Your task to perform on an android device: turn off location history Image 0: 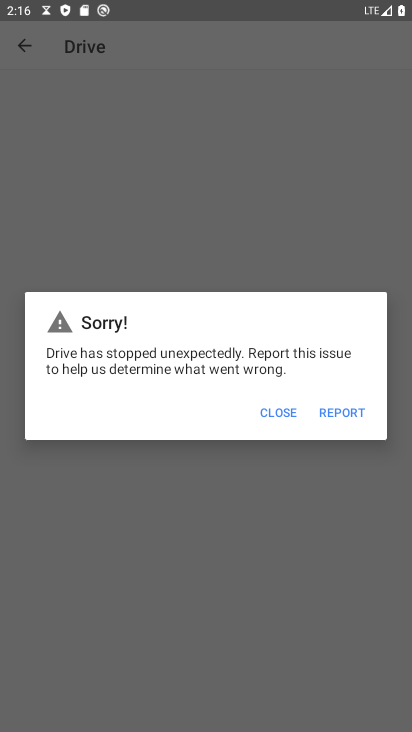
Step 0: press home button
Your task to perform on an android device: turn off location history Image 1: 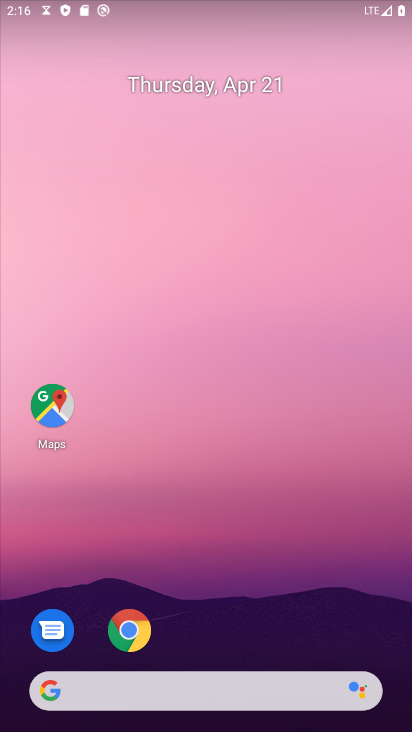
Step 1: click (346, 617)
Your task to perform on an android device: turn off location history Image 2: 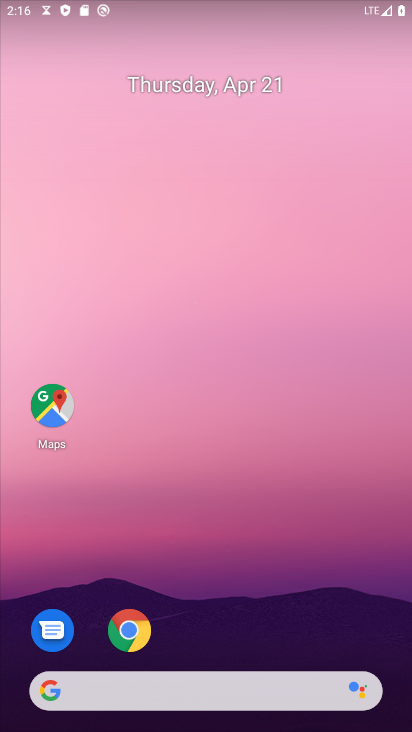
Step 2: click (55, 396)
Your task to perform on an android device: turn off location history Image 3: 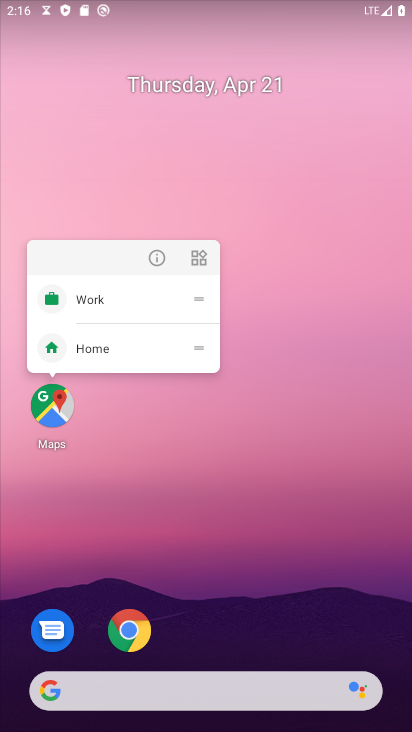
Step 3: click (52, 405)
Your task to perform on an android device: turn off location history Image 4: 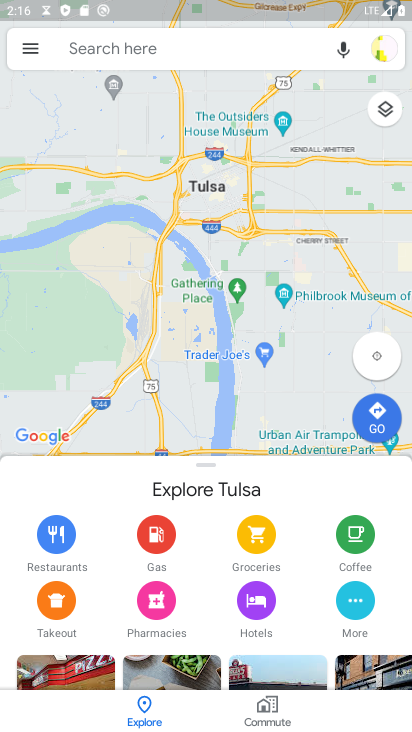
Step 4: click (28, 49)
Your task to perform on an android device: turn off location history Image 5: 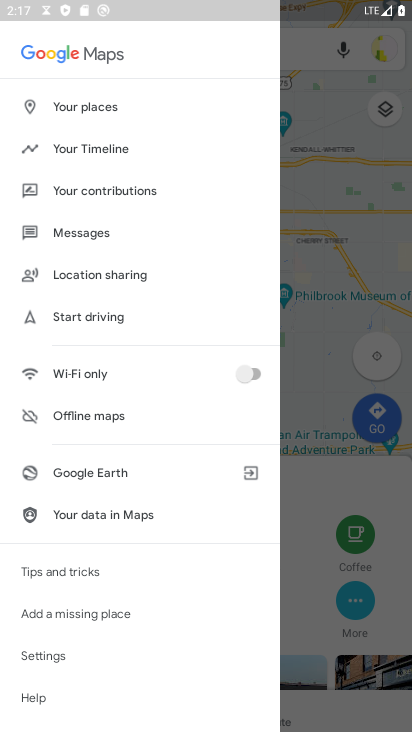
Step 5: click (78, 159)
Your task to perform on an android device: turn off location history Image 6: 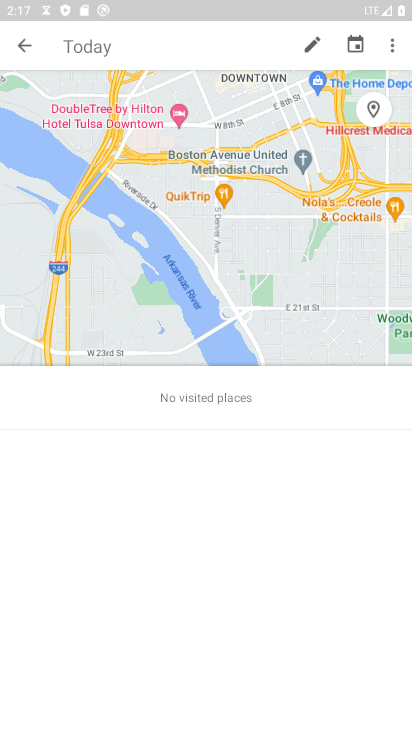
Step 6: click (393, 41)
Your task to perform on an android device: turn off location history Image 7: 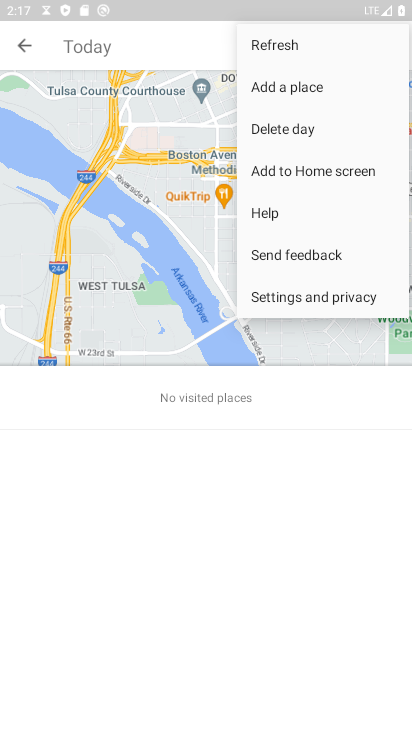
Step 7: click (284, 297)
Your task to perform on an android device: turn off location history Image 8: 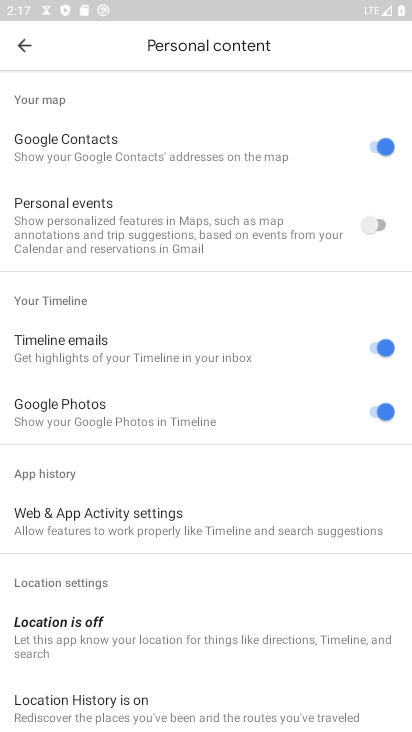
Step 8: drag from (193, 573) to (193, 307)
Your task to perform on an android device: turn off location history Image 9: 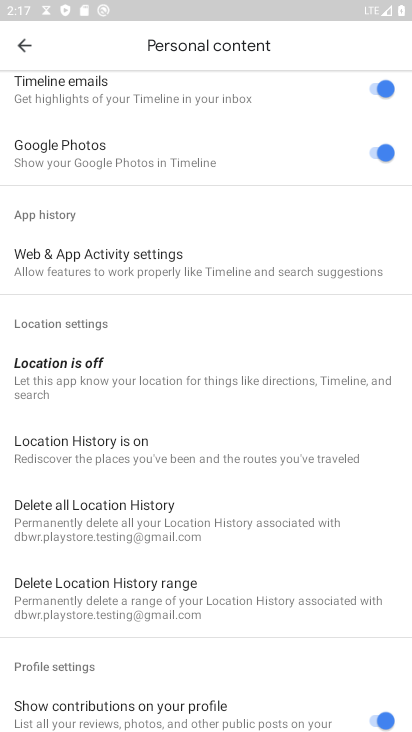
Step 9: click (86, 455)
Your task to perform on an android device: turn off location history Image 10: 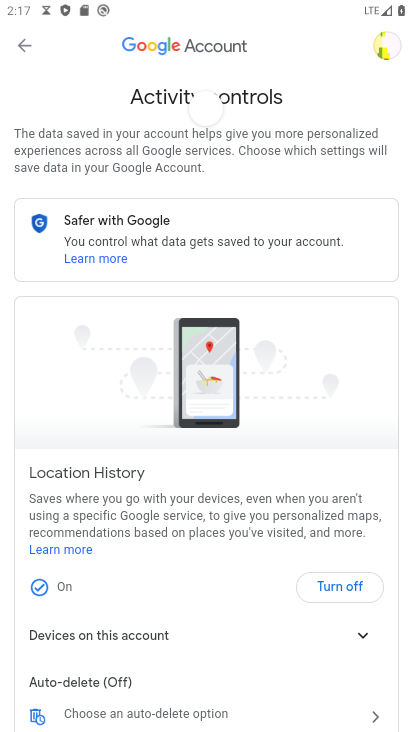
Step 10: drag from (304, 406) to (292, 172)
Your task to perform on an android device: turn off location history Image 11: 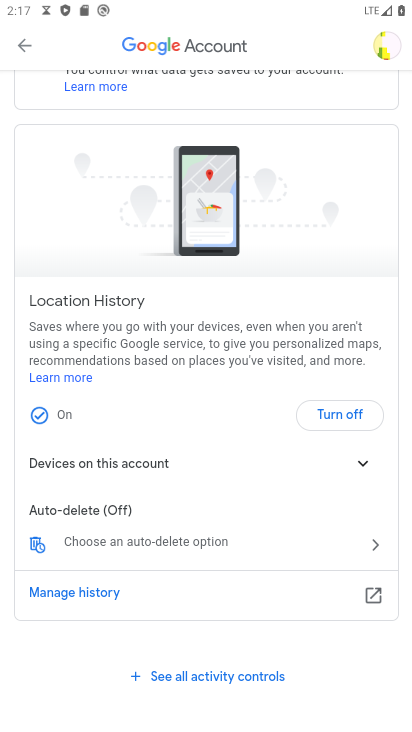
Step 11: click (330, 412)
Your task to perform on an android device: turn off location history Image 12: 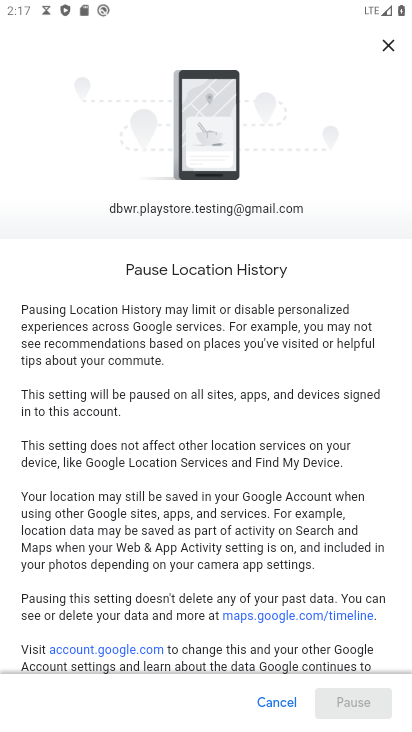
Step 12: drag from (161, 583) to (194, 70)
Your task to perform on an android device: turn off location history Image 13: 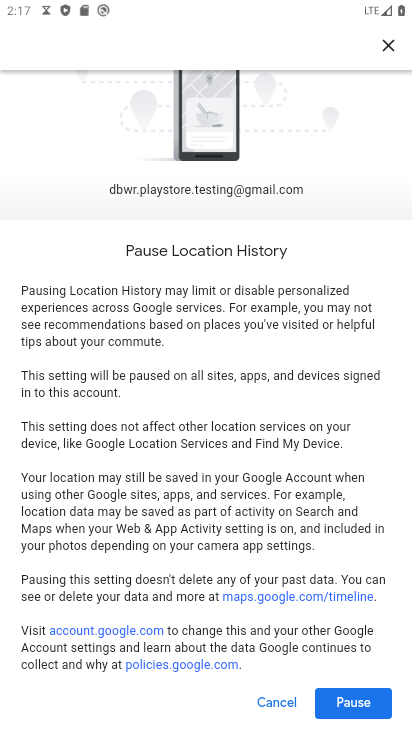
Step 13: click (346, 701)
Your task to perform on an android device: turn off location history Image 14: 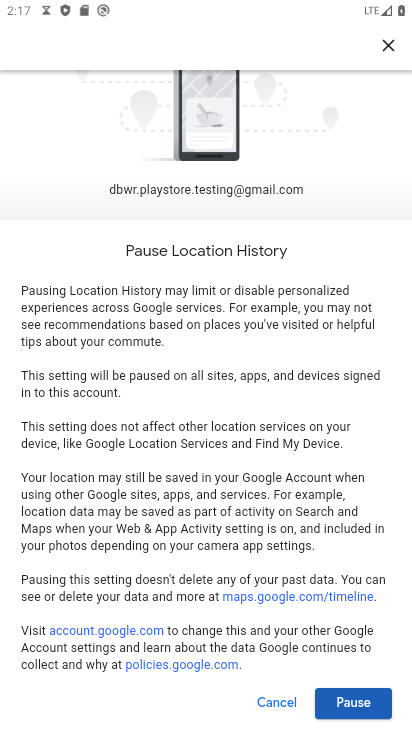
Step 14: click (346, 701)
Your task to perform on an android device: turn off location history Image 15: 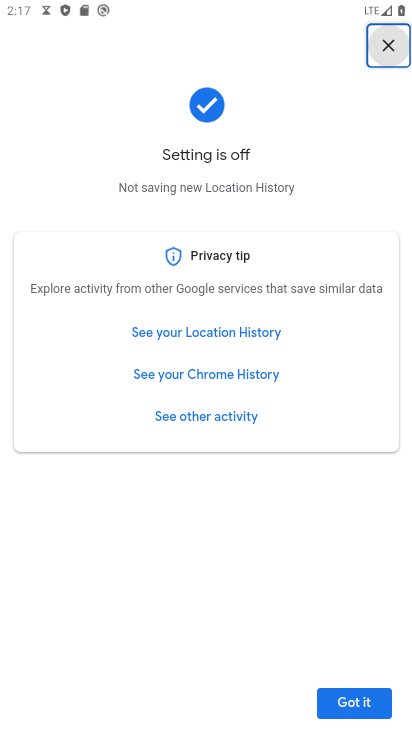
Step 15: click (346, 711)
Your task to perform on an android device: turn off location history Image 16: 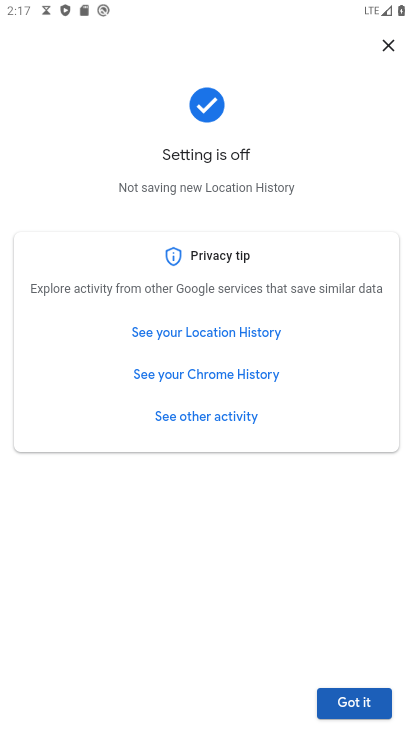
Step 16: click (347, 705)
Your task to perform on an android device: turn off location history Image 17: 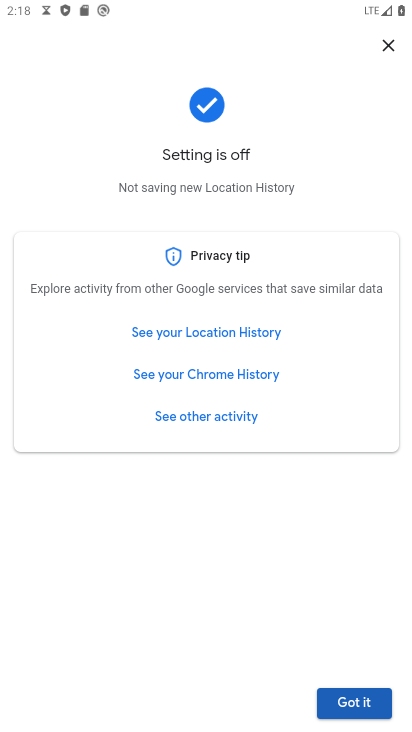
Step 17: click (358, 706)
Your task to perform on an android device: turn off location history Image 18: 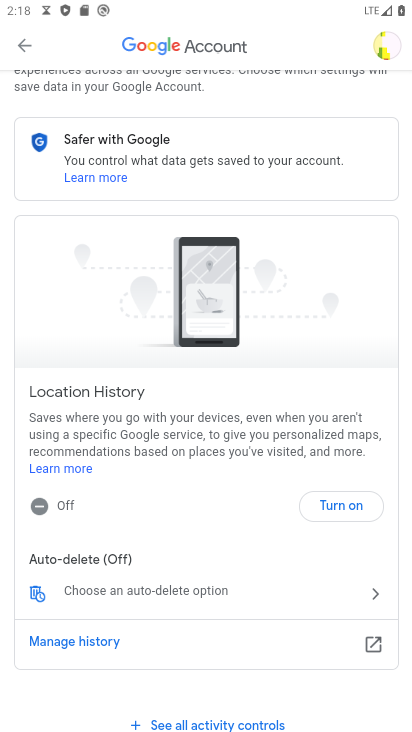
Step 18: task complete